Your task to perform on an android device: Open ESPN.com Image 0: 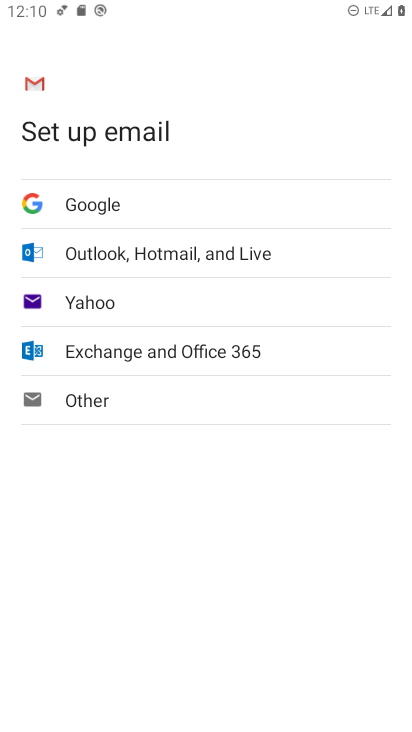
Step 0: press home button
Your task to perform on an android device: Open ESPN.com Image 1: 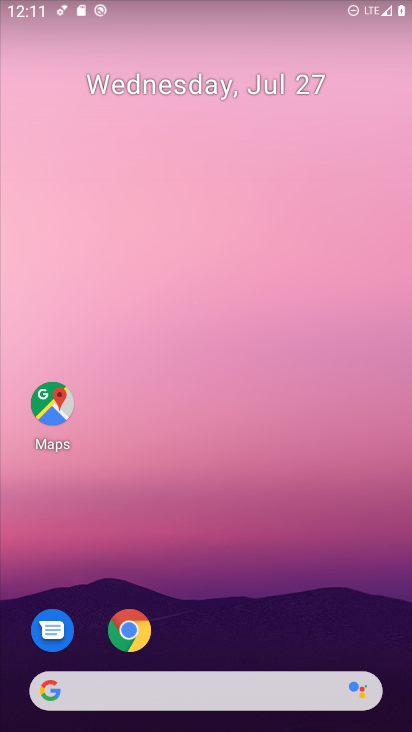
Step 1: click (130, 629)
Your task to perform on an android device: Open ESPN.com Image 2: 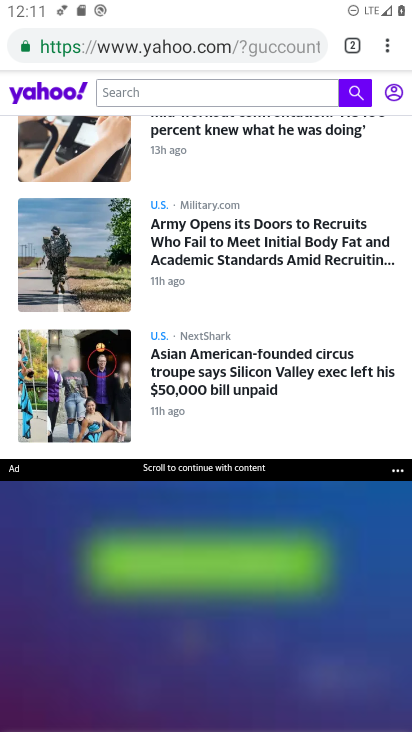
Step 2: click (299, 35)
Your task to perform on an android device: Open ESPN.com Image 3: 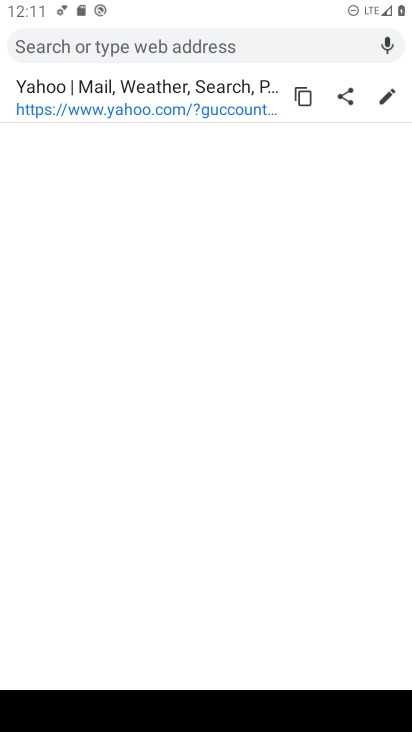
Step 3: type "espn.com"
Your task to perform on an android device: Open ESPN.com Image 4: 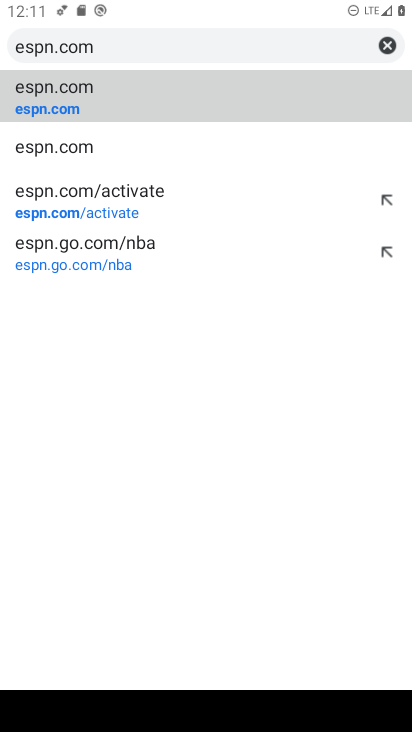
Step 4: click (61, 89)
Your task to perform on an android device: Open ESPN.com Image 5: 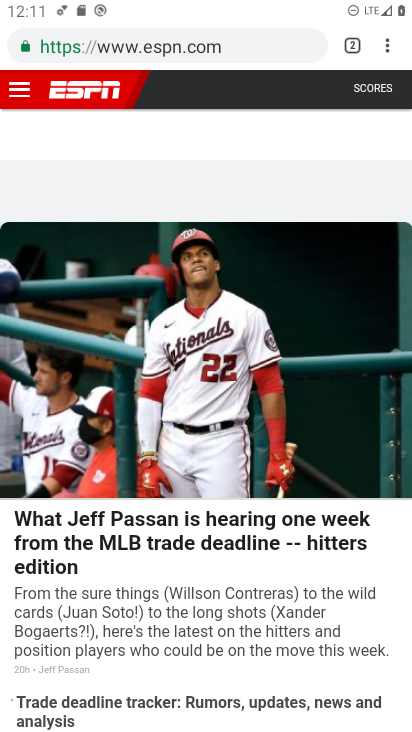
Step 5: task complete